Your task to perform on an android device: open app "Paramount+ | Peak Streaming" (install if not already installed), go to login, and select forgot password Image 0: 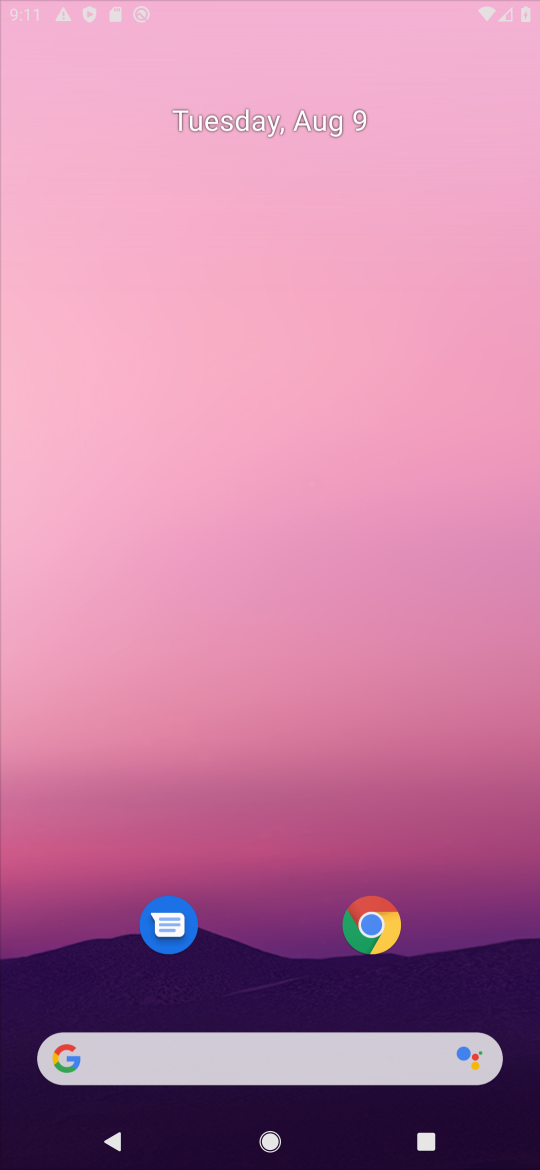
Step 0: press home button
Your task to perform on an android device: open app "Paramount+ | Peak Streaming" (install if not already installed), go to login, and select forgot password Image 1: 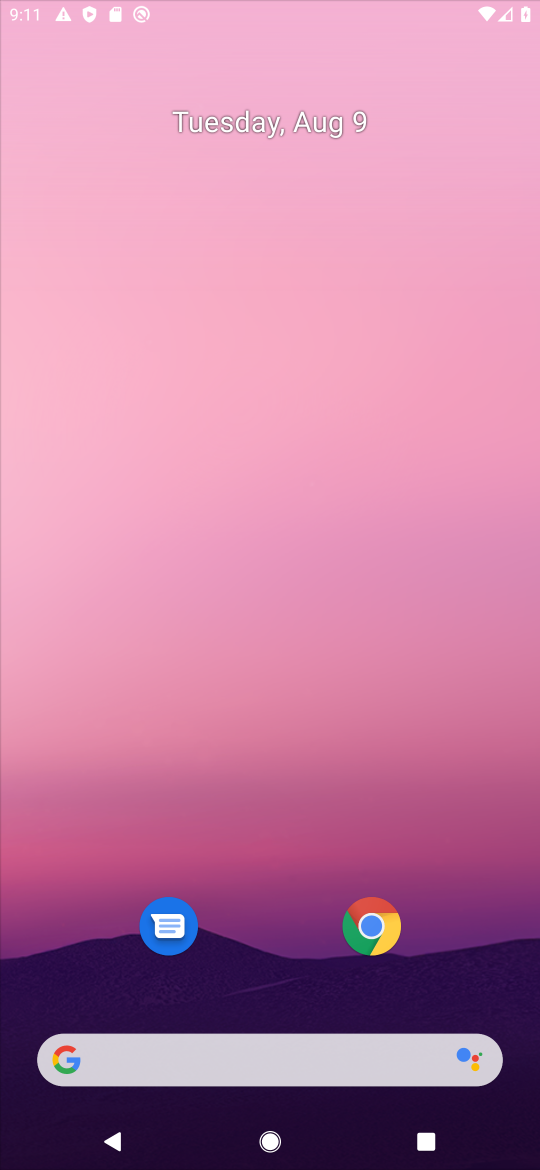
Step 1: drag from (228, 1016) to (246, 464)
Your task to perform on an android device: open app "Paramount+ | Peak Streaming" (install if not already installed), go to login, and select forgot password Image 2: 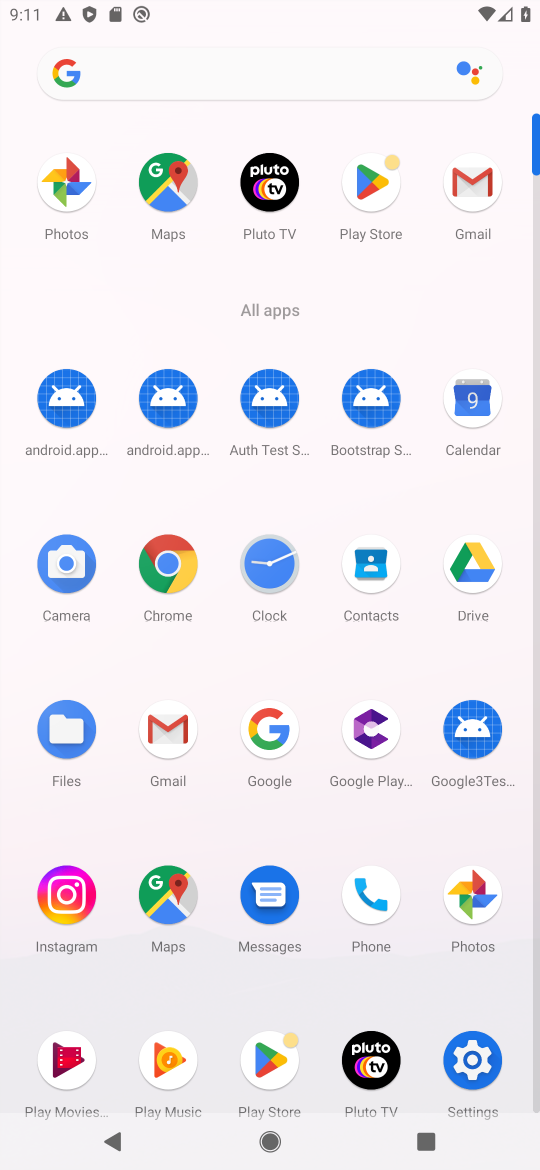
Step 2: click (263, 1054)
Your task to perform on an android device: open app "Paramount+ | Peak Streaming" (install if not already installed), go to login, and select forgot password Image 3: 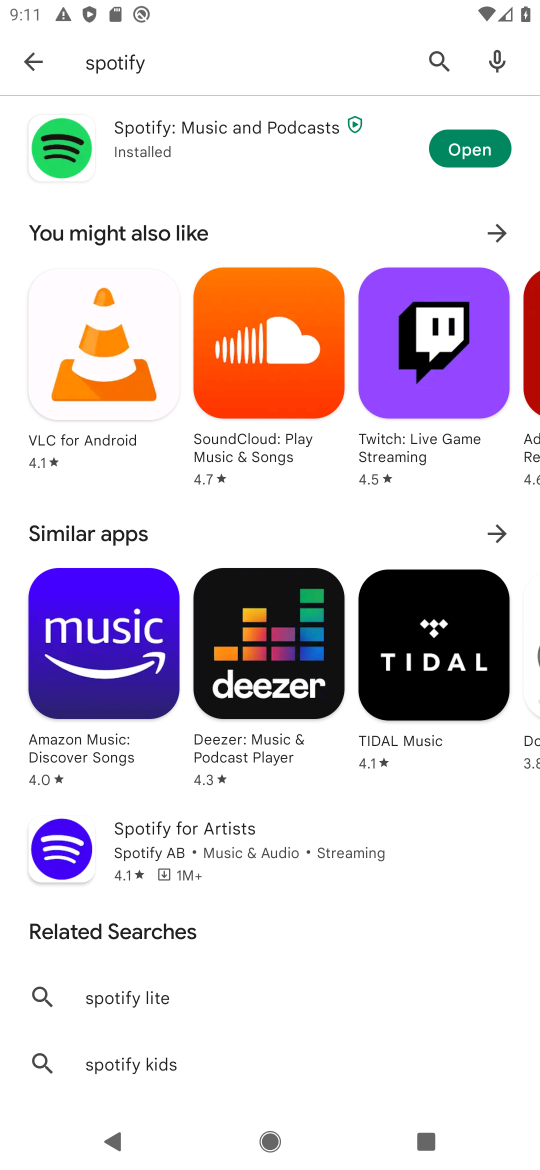
Step 3: click (167, 57)
Your task to perform on an android device: open app "Paramount+ | Peak Streaming" (install if not already installed), go to login, and select forgot password Image 4: 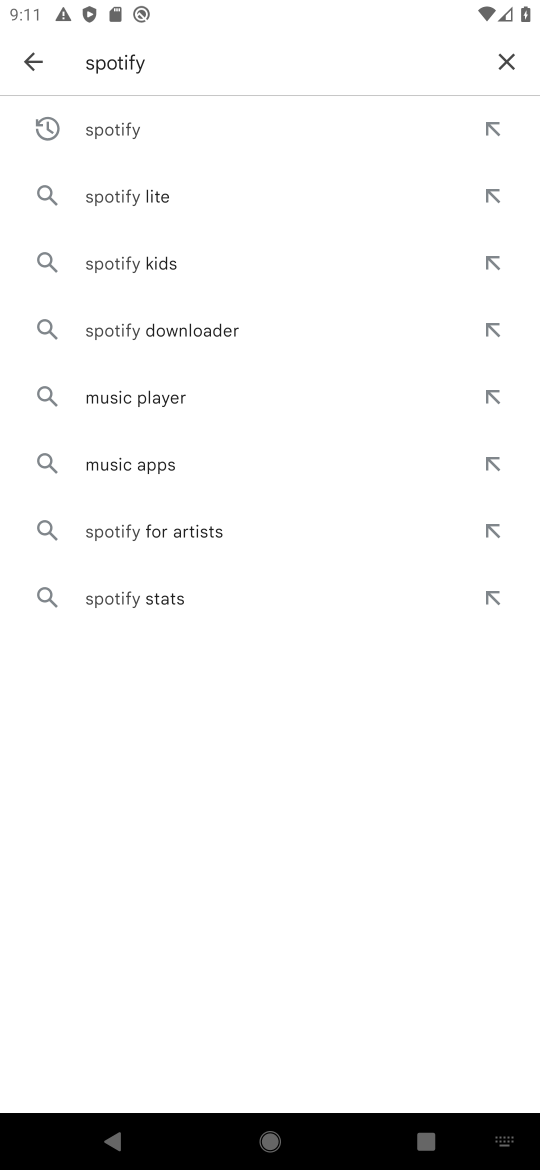
Step 4: click (502, 59)
Your task to perform on an android device: open app "Paramount+ | Peak Streaming" (install if not already installed), go to login, and select forgot password Image 5: 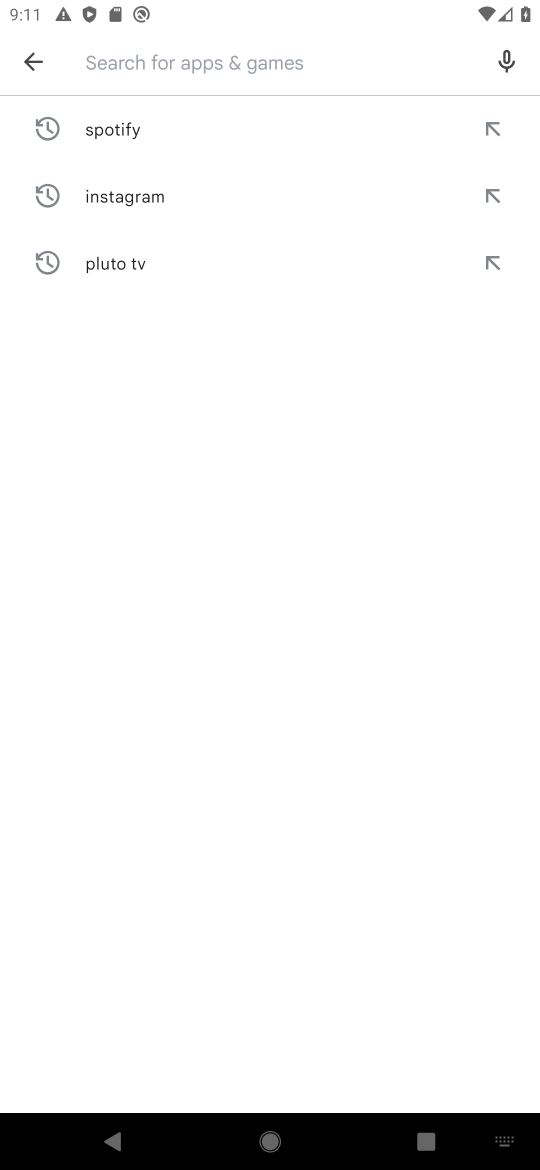
Step 5: type "paramount+"
Your task to perform on an android device: open app "Paramount+ | Peak Streaming" (install if not already installed), go to login, and select forgot password Image 6: 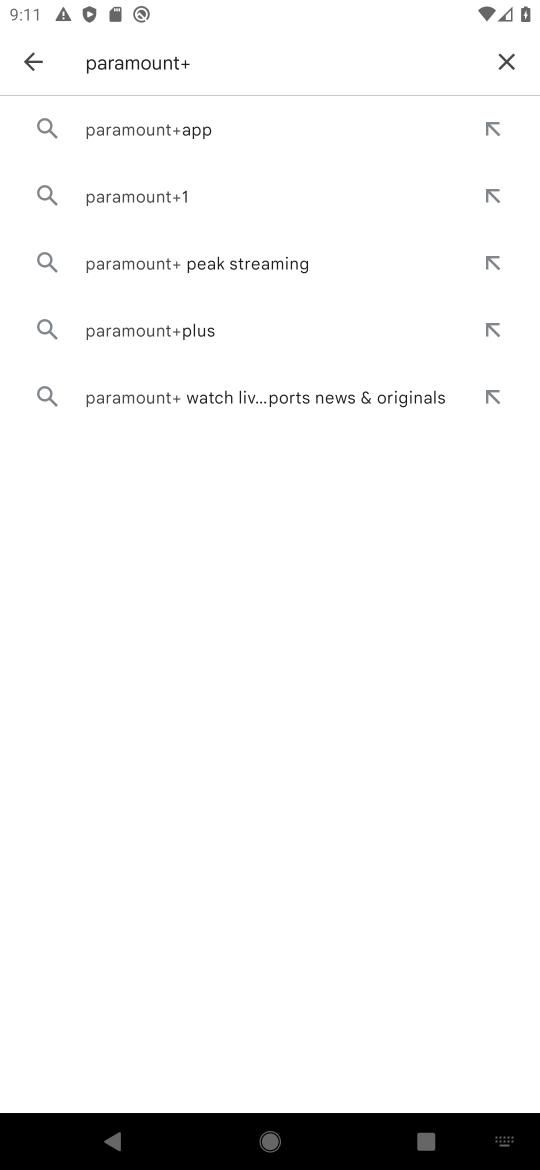
Step 6: click (196, 263)
Your task to perform on an android device: open app "Paramount+ | Peak Streaming" (install if not already installed), go to login, and select forgot password Image 7: 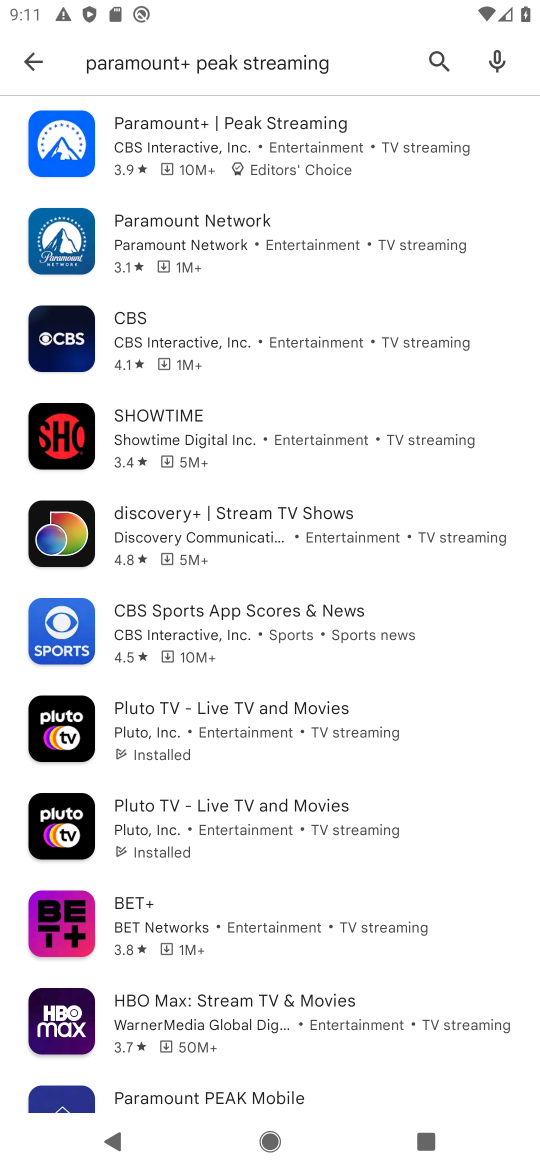
Step 7: click (149, 144)
Your task to perform on an android device: open app "Paramount+ | Peak Streaming" (install if not already installed), go to login, and select forgot password Image 8: 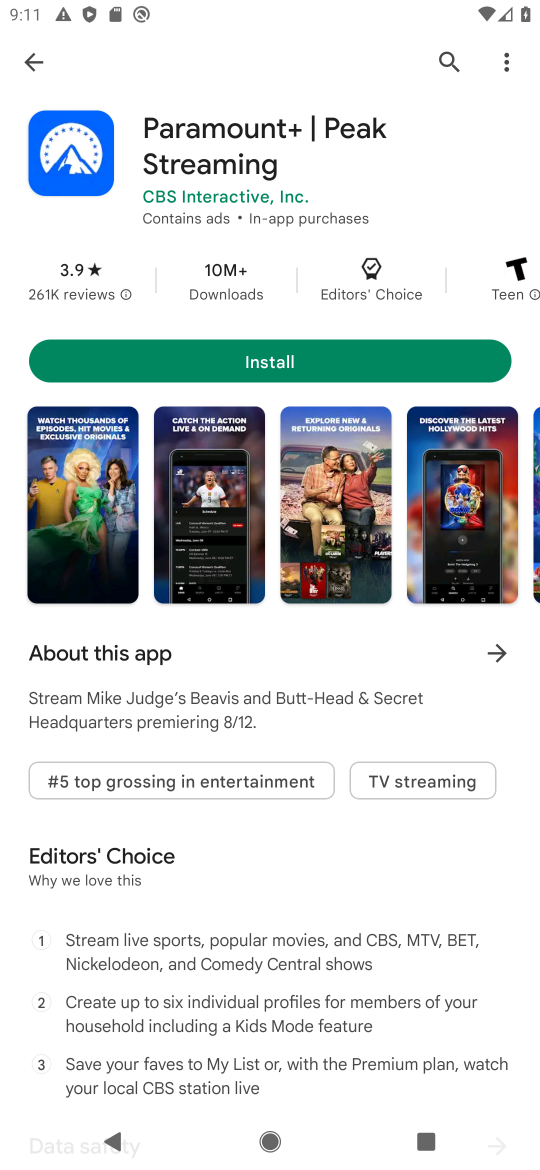
Step 8: click (218, 368)
Your task to perform on an android device: open app "Paramount+ | Peak Streaming" (install if not already installed), go to login, and select forgot password Image 9: 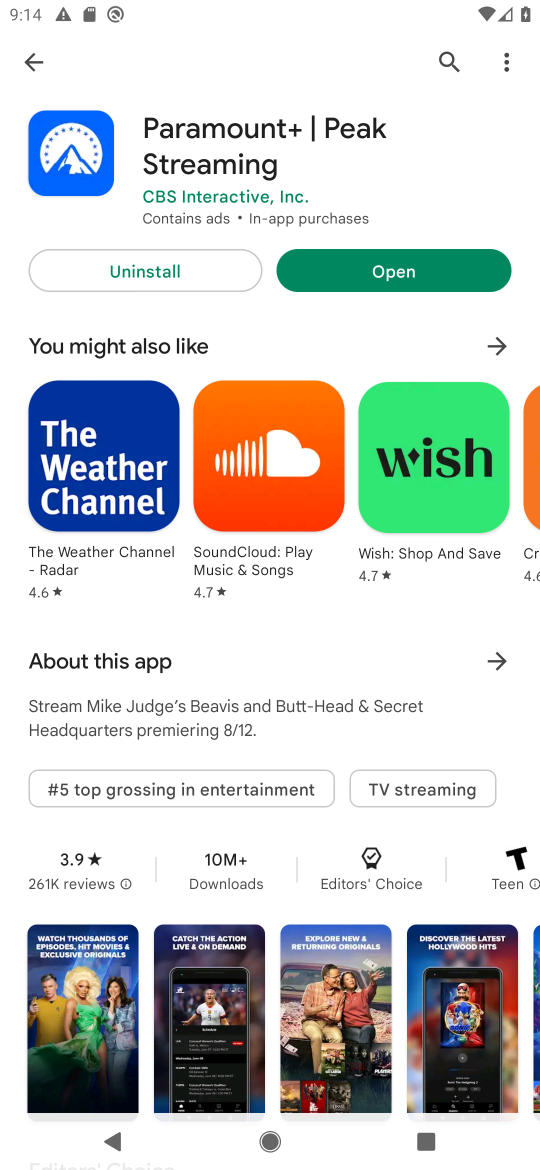
Step 9: click (372, 271)
Your task to perform on an android device: open app "Paramount+ | Peak Streaming" (install if not already installed), go to login, and select forgot password Image 10: 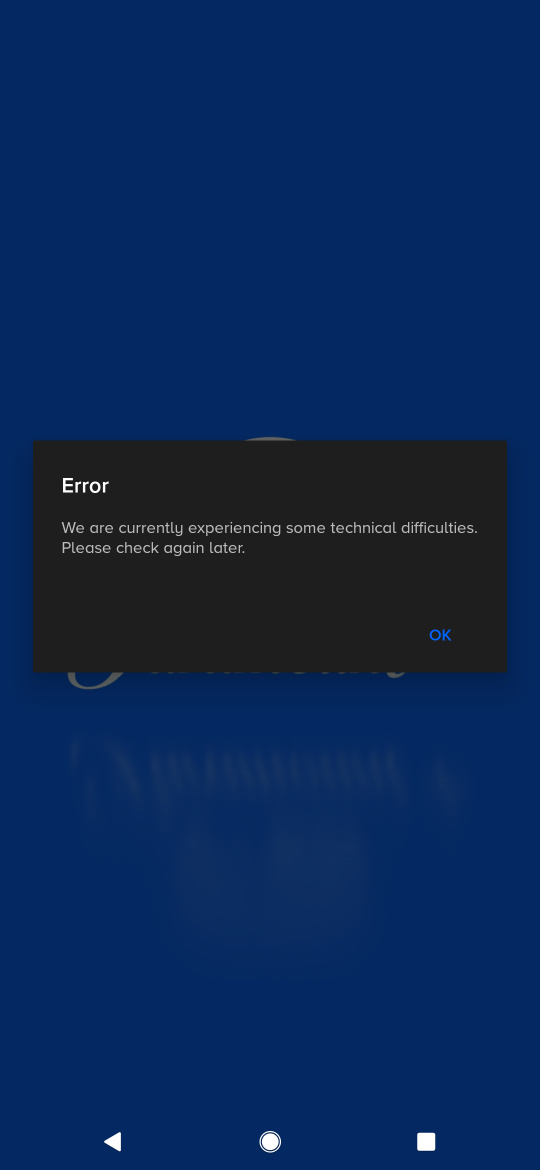
Step 10: click (423, 639)
Your task to perform on an android device: open app "Paramount+ | Peak Streaming" (install if not already installed), go to login, and select forgot password Image 11: 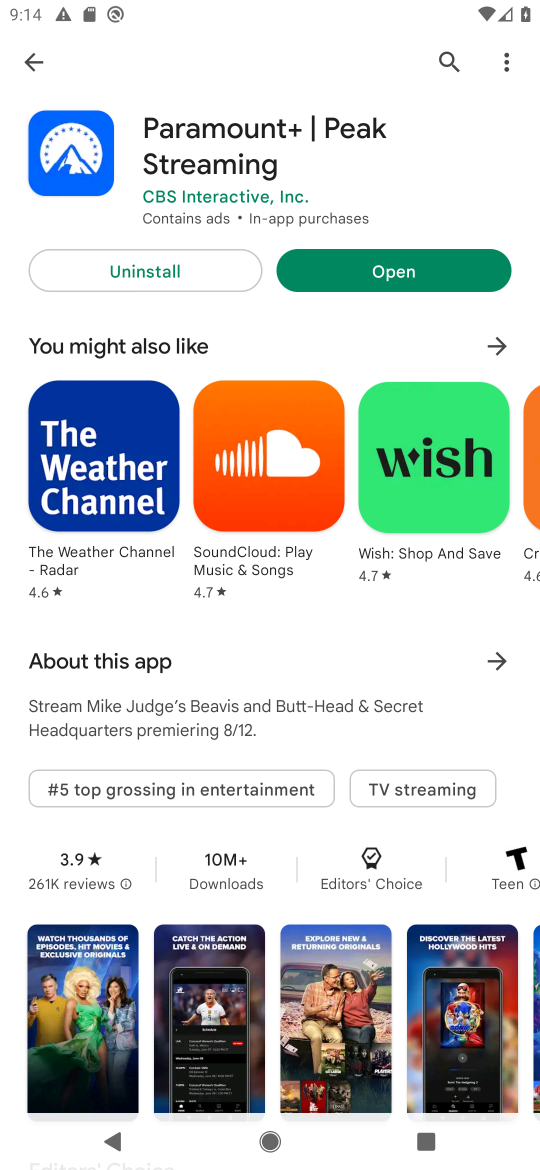
Step 11: click (417, 259)
Your task to perform on an android device: open app "Paramount+ | Peak Streaming" (install if not already installed), go to login, and select forgot password Image 12: 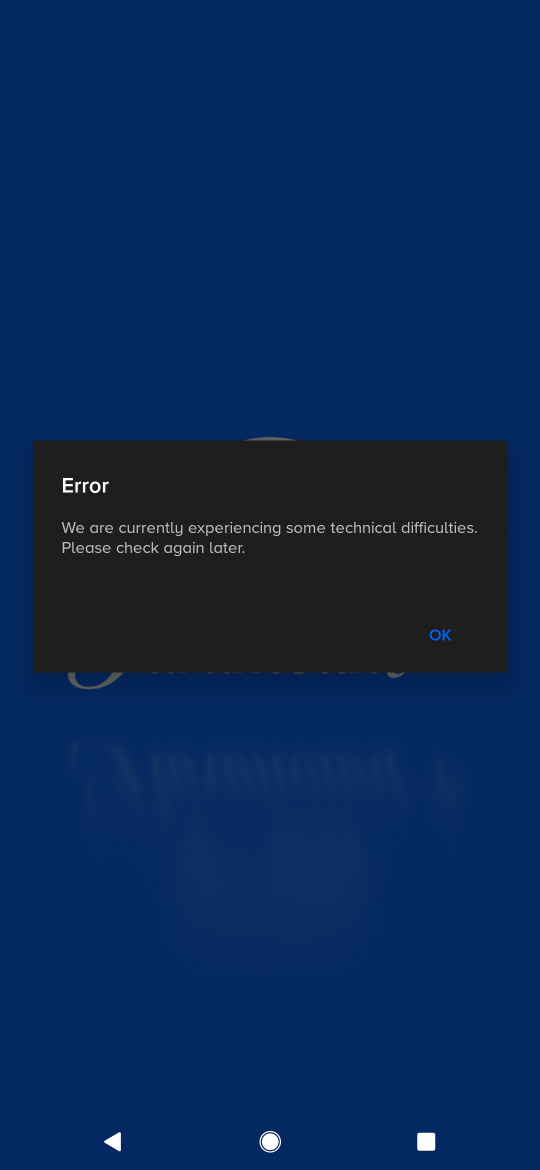
Step 12: click (447, 639)
Your task to perform on an android device: open app "Paramount+ | Peak Streaming" (install if not already installed), go to login, and select forgot password Image 13: 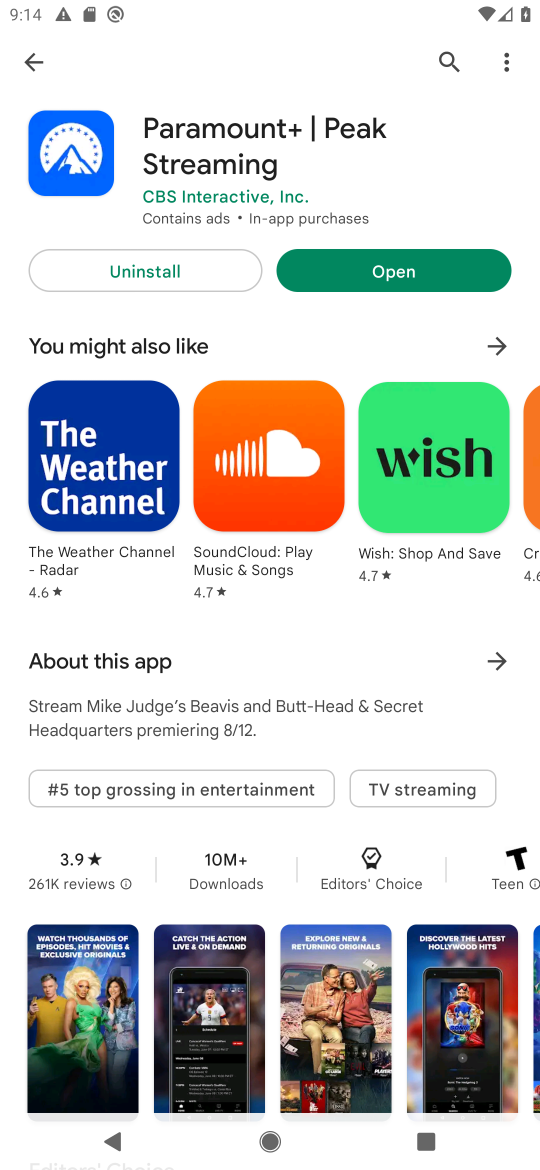
Step 13: task complete